Your task to perform on an android device: Turn off the flashlight Image 0: 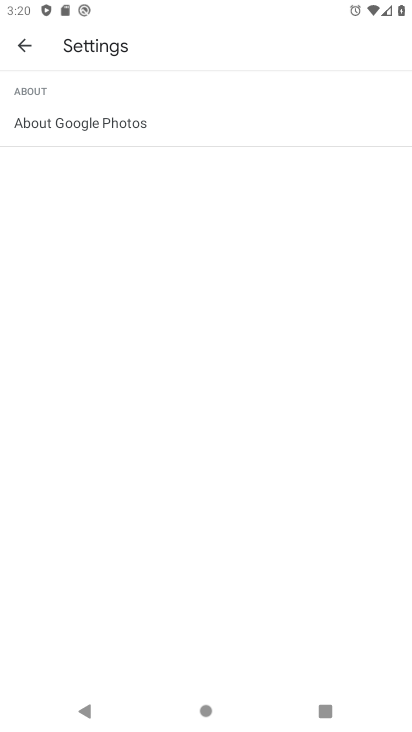
Step 0: click (271, 145)
Your task to perform on an android device: Turn off the flashlight Image 1: 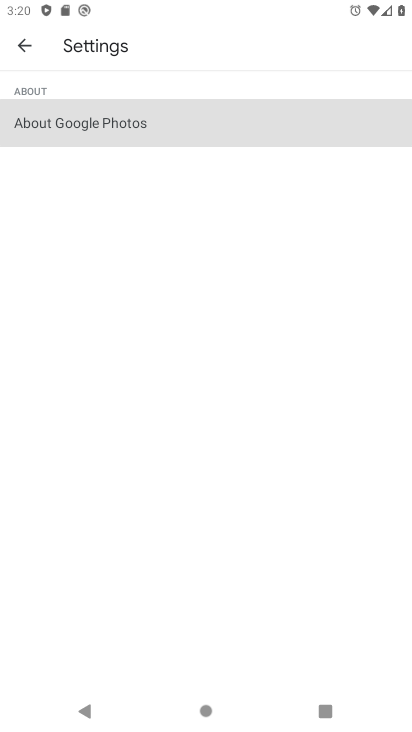
Step 1: task complete